Your task to perform on an android device: Add razer blade to the cart on costco.com Image 0: 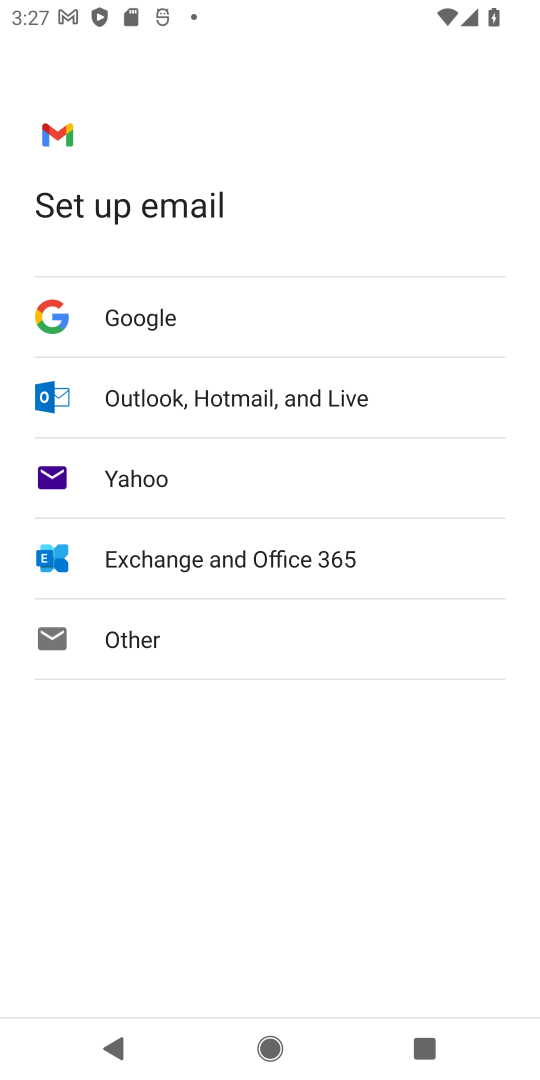
Step 0: press home button
Your task to perform on an android device: Add razer blade to the cart on costco.com Image 1: 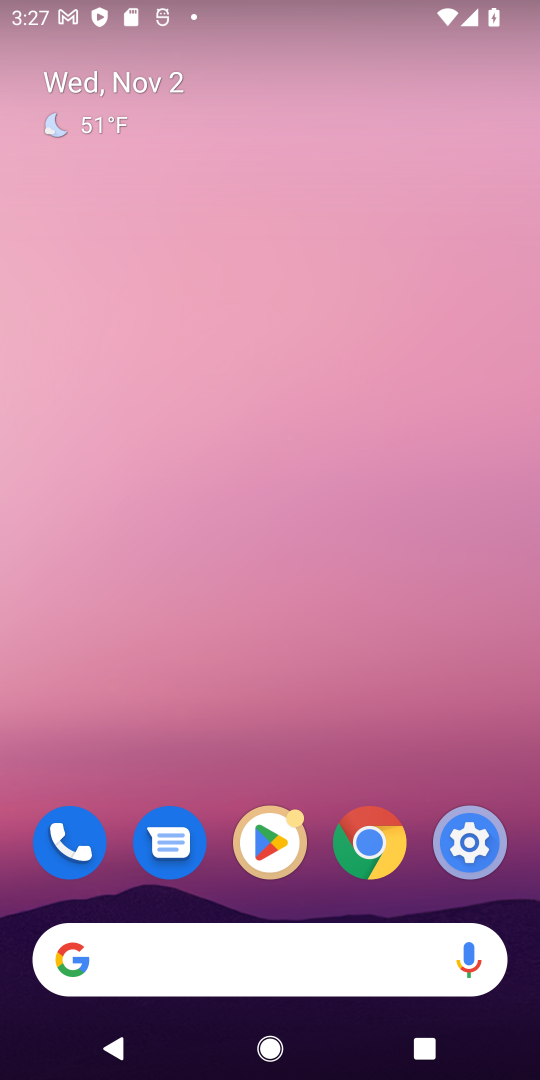
Step 1: click (258, 949)
Your task to perform on an android device: Add razer blade to the cart on costco.com Image 2: 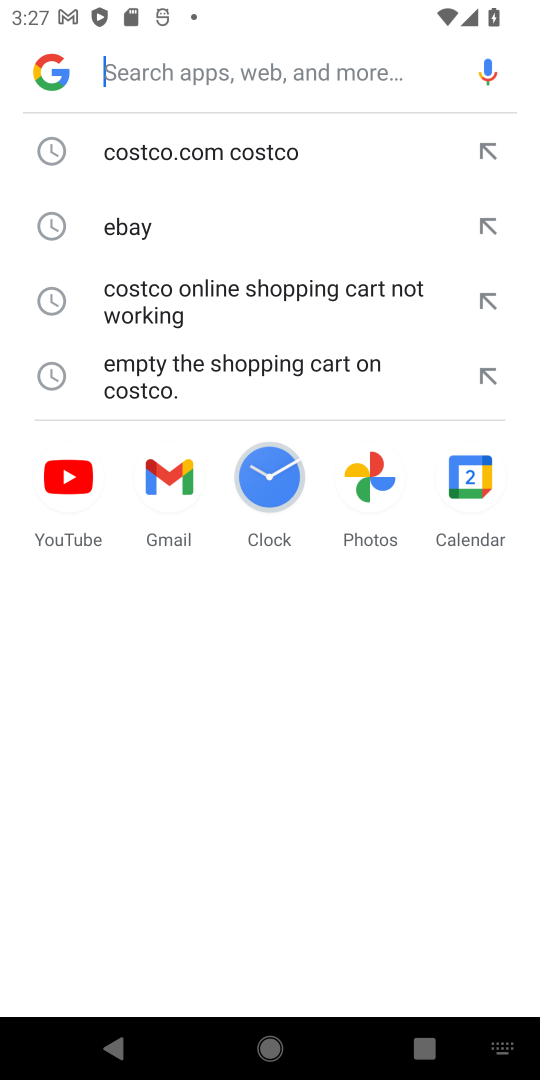
Step 2: type "costco.com"
Your task to perform on an android device: Add razer blade to the cart on costco.com Image 3: 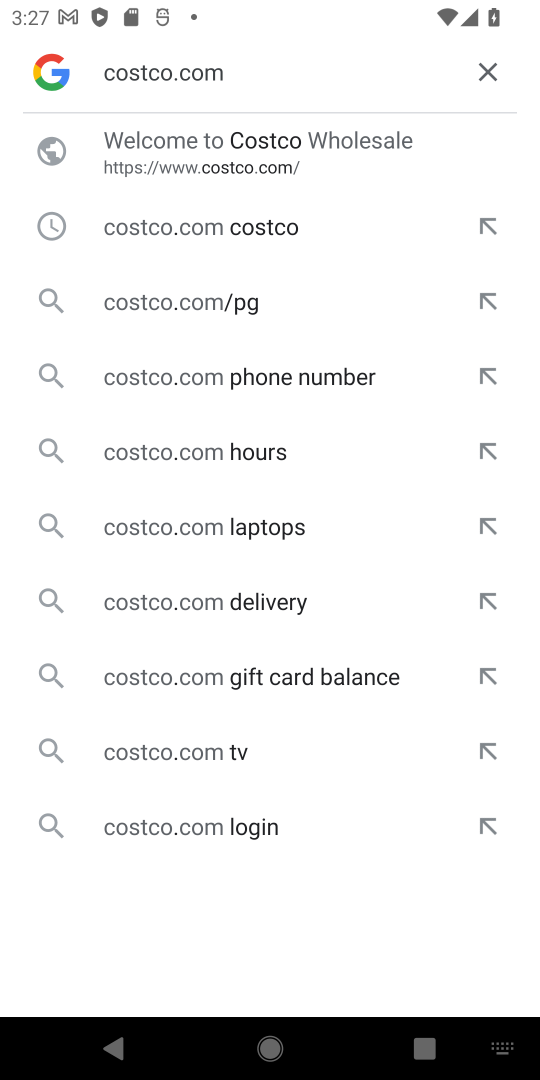
Step 3: click (192, 140)
Your task to perform on an android device: Add razer blade to the cart on costco.com Image 4: 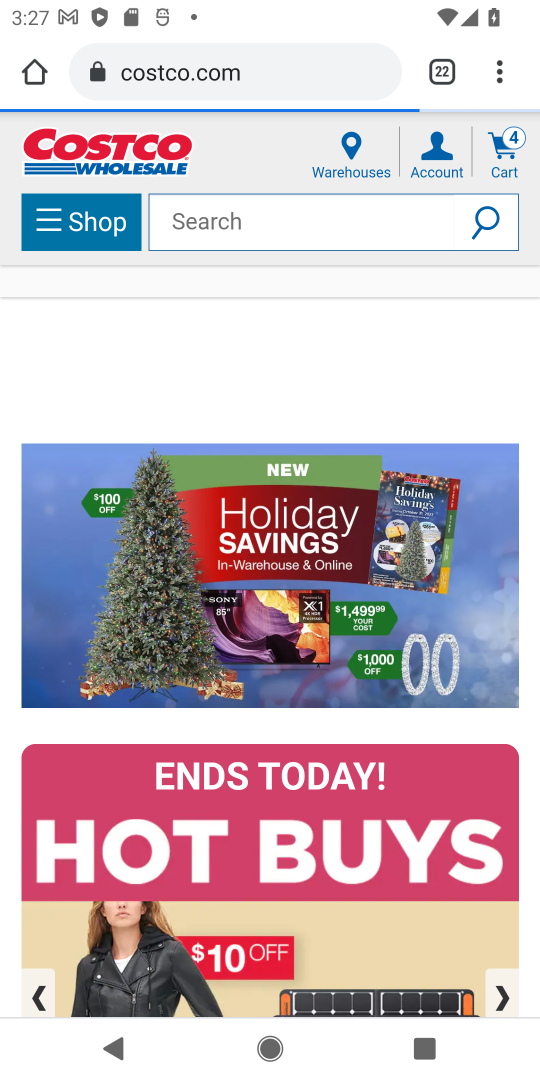
Step 4: click (273, 216)
Your task to perform on an android device: Add razer blade to the cart on costco.com Image 5: 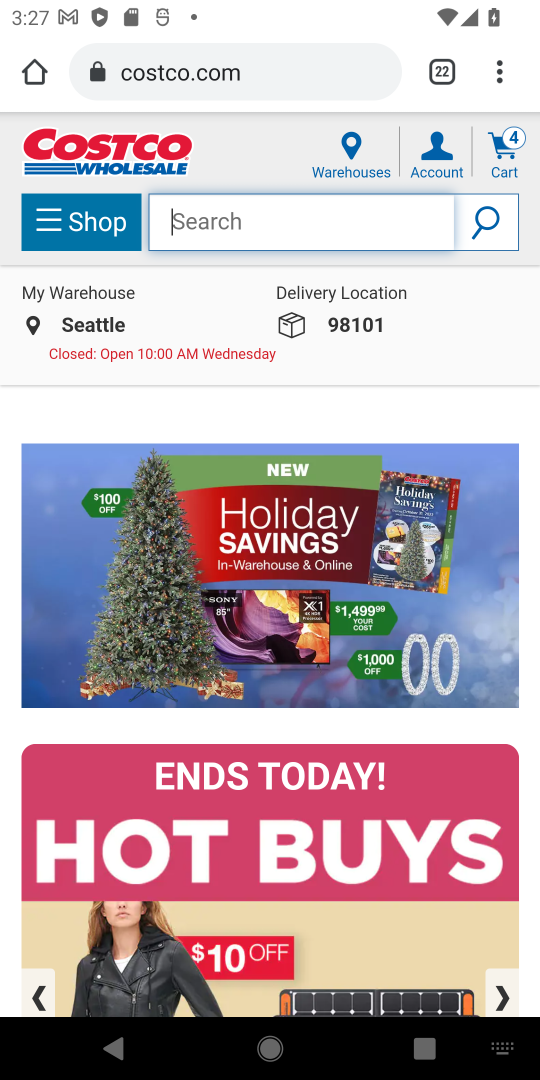
Step 5: type "razer blade"
Your task to perform on an android device: Add razer blade to the cart on costco.com Image 6: 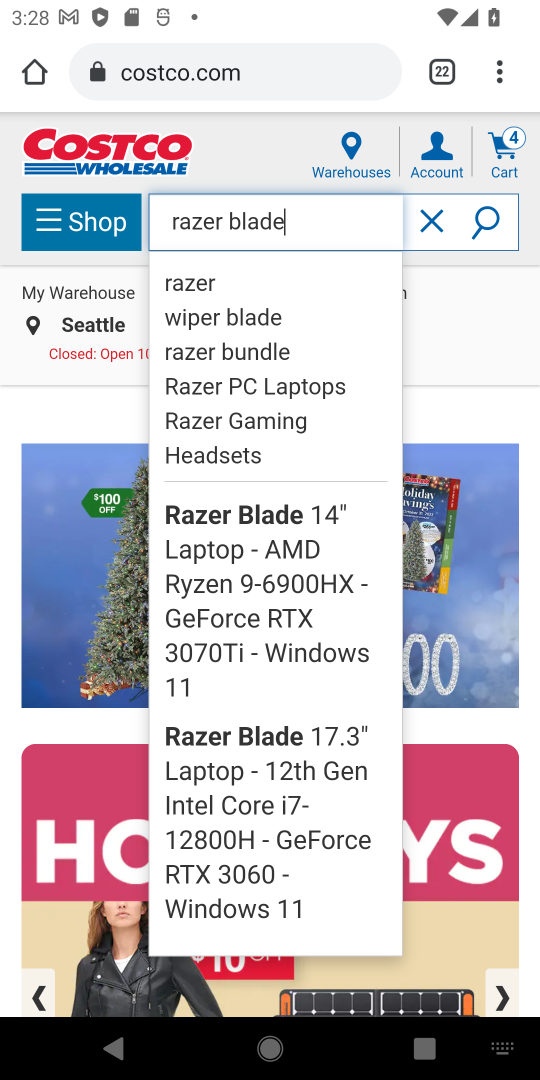
Step 6: click (478, 223)
Your task to perform on an android device: Add razer blade to the cart on costco.com Image 7: 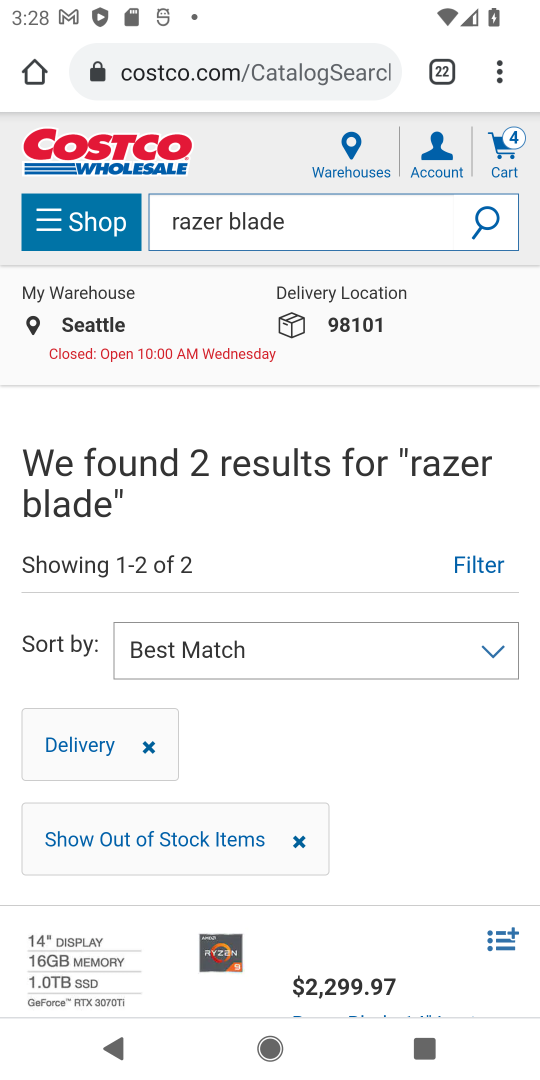
Step 7: drag from (409, 737) to (358, 452)
Your task to perform on an android device: Add razer blade to the cart on costco.com Image 8: 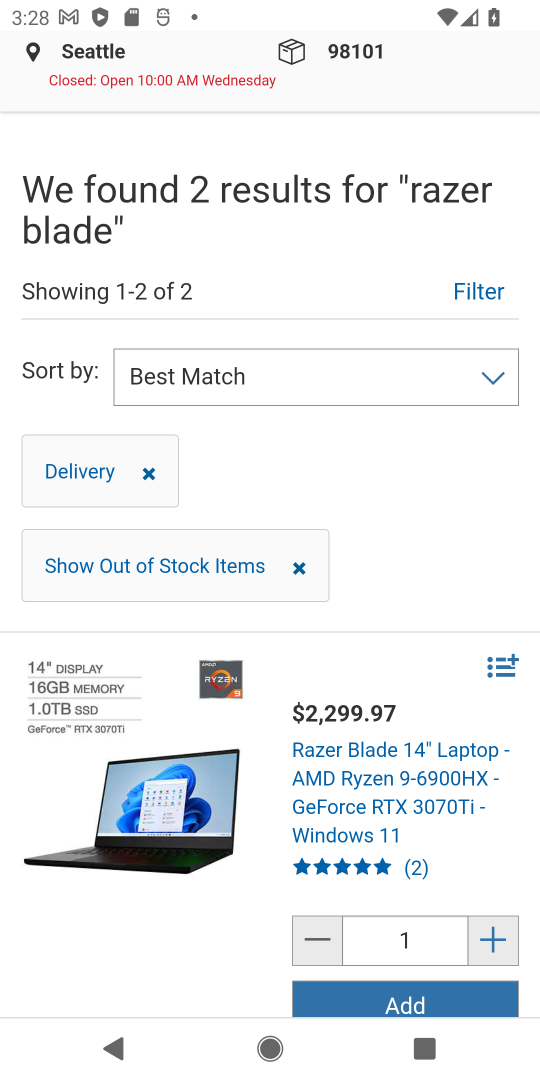
Step 8: drag from (438, 510) to (386, 198)
Your task to perform on an android device: Add razer blade to the cart on costco.com Image 9: 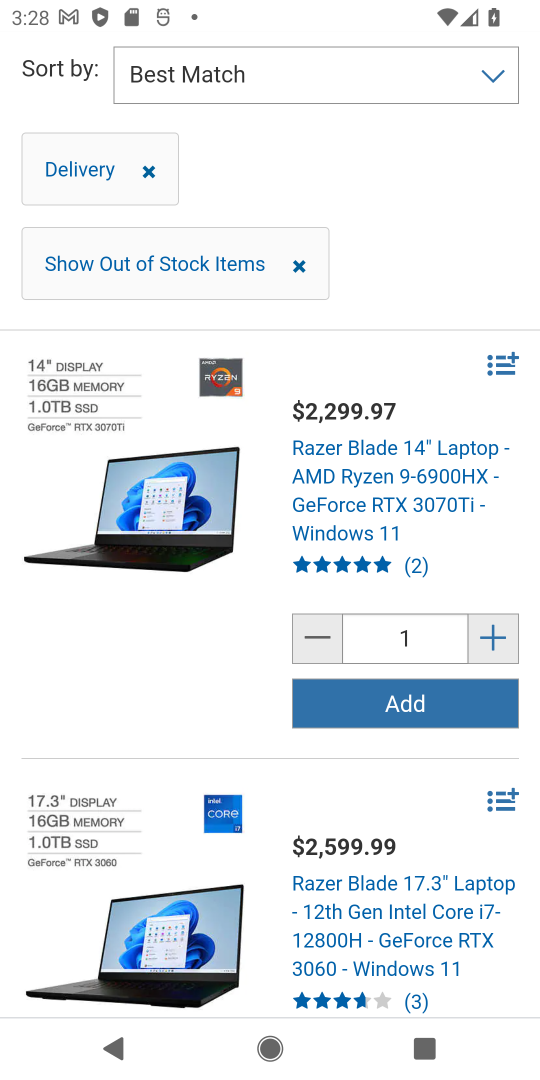
Step 9: click (408, 706)
Your task to perform on an android device: Add razer blade to the cart on costco.com Image 10: 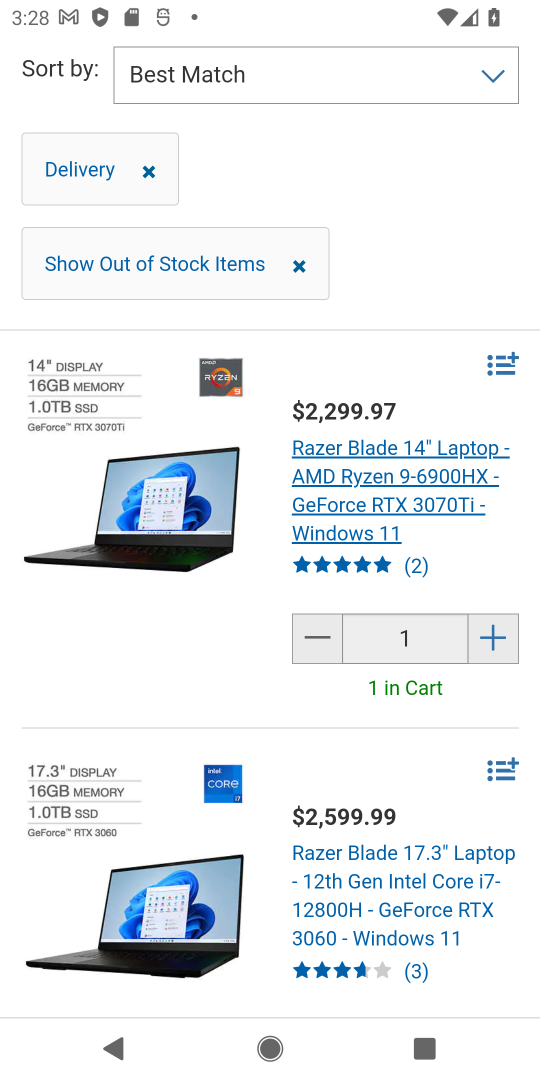
Step 10: task complete